Your task to perform on an android device: Go to eBay Image 0: 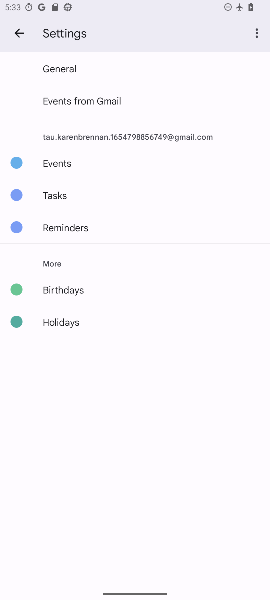
Step 0: drag from (109, 368) to (119, 314)
Your task to perform on an android device: Go to eBay Image 1: 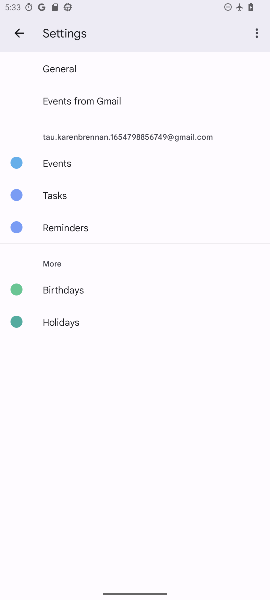
Step 1: press home button
Your task to perform on an android device: Go to eBay Image 2: 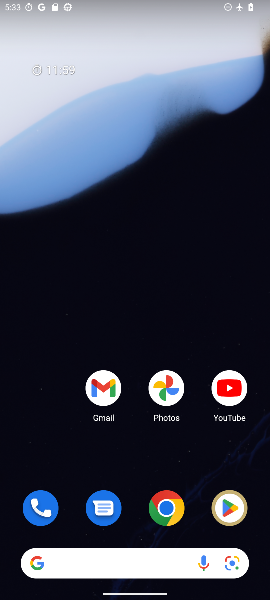
Step 2: drag from (135, 524) to (53, 18)
Your task to perform on an android device: Go to eBay Image 3: 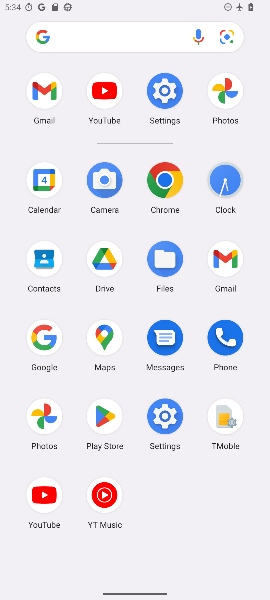
Step 3: click (134, 30)
Your task to perform on an android device: Go to eBay Image 4: 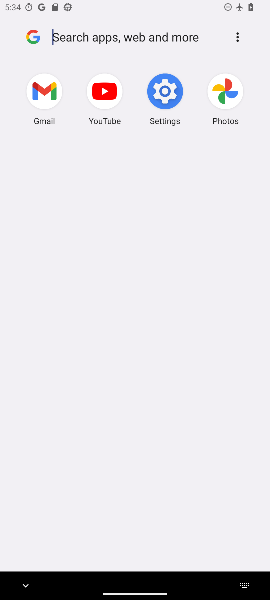
Step 4: press back button
Your task to perform on an android device: Go to eBay Image 5: 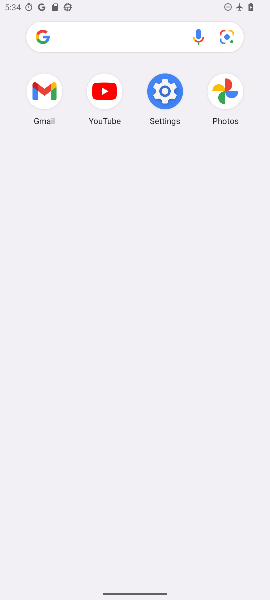
Step 5: press home button
Your task to perform on an android device: Go to eBay Image 6: 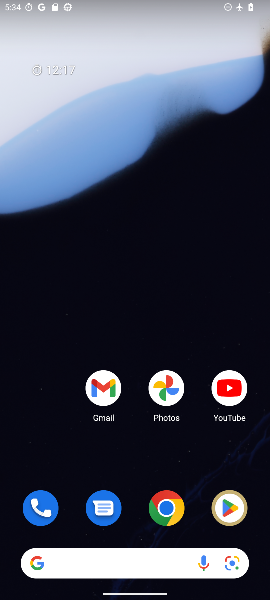
Step 6: click (156, 508)
Your task to perform on an android device: Go to eBay Image 7: 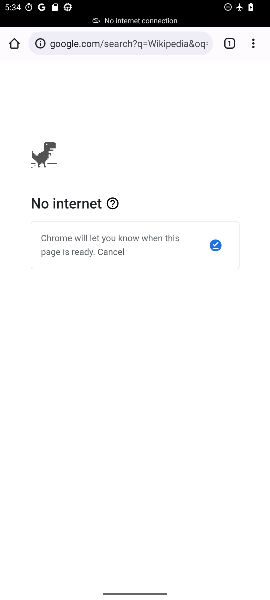
Step 7: drag from (233, 497) to (123, 385)
Your task to perform on an android device: Go to eBay Image 8: 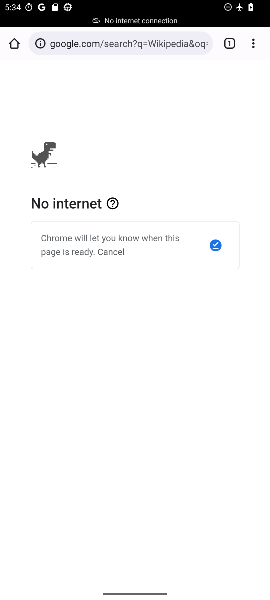
Step 8: drag from (178, 495) to (10, 6)
Your task to perform on an android device: Go to eBay Image 9: 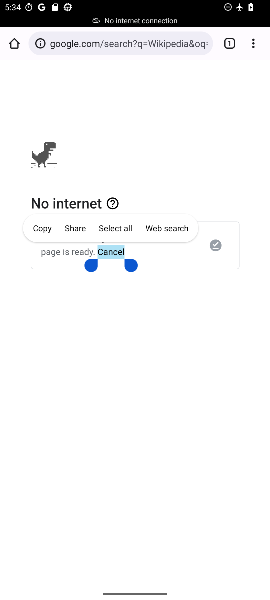
Step 9: click (108, 48)
Your task to perform on an android device: Go to eBay Image 10: 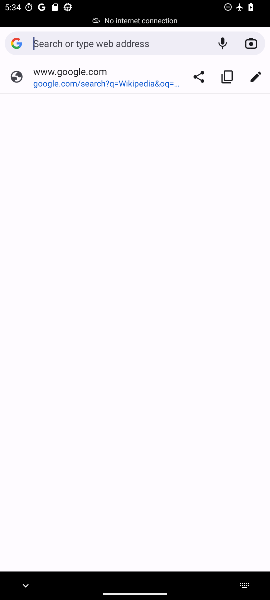
Step 10: type "eBay"
Your task to perform on an android device: Go to eBay Image 11: 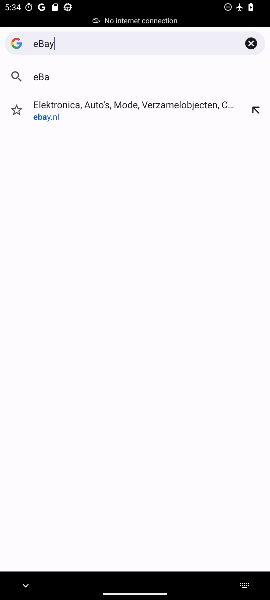
Step 11: type ""
Your task to perform on an android device: Go to eBay Image 12: 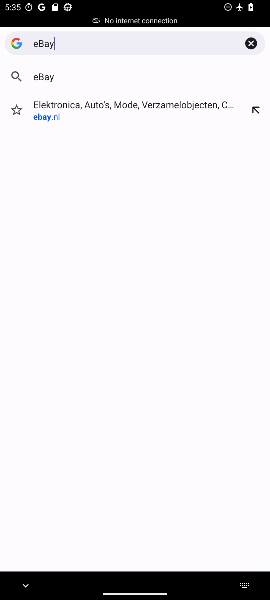
Step 12: click (60, 112)
Your task to perform on an android device: Go to eBay Image 13: 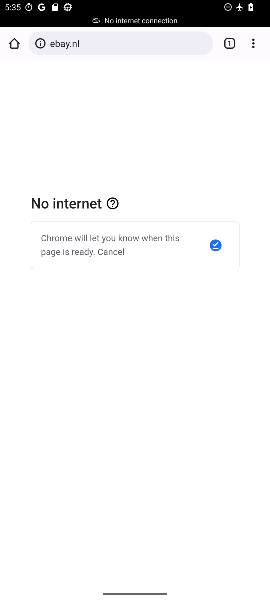
Step 13: drag from (73, 385) to (88, 219)
Your task to perform on an android device: Go to eBay Image 14: 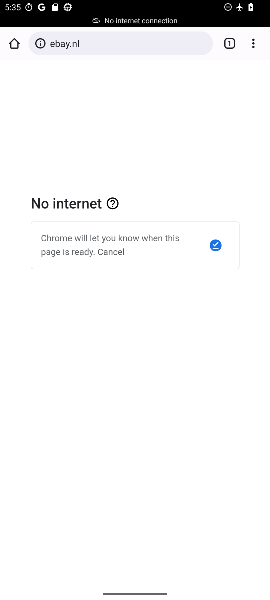
Step 14: click (117, 39)
Your task to perform on an android device: Go to eBay Image 15: 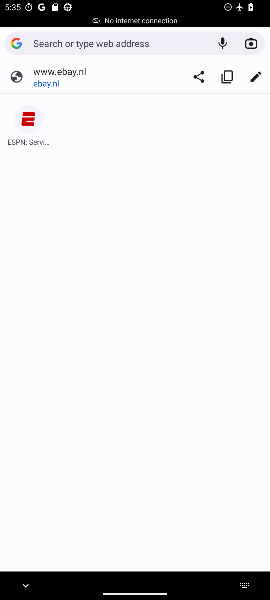
Step 15: type "eBay"
Your task to perform on an android device: Go to eBay Image 16: 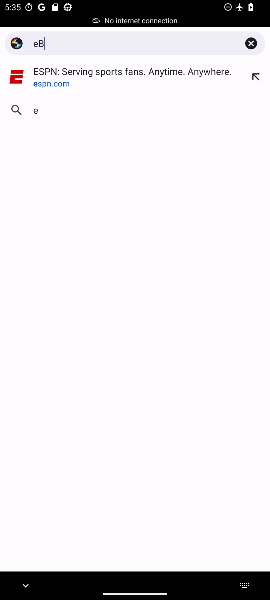
Step 16: type ""
Your task to perform on an android device: Go to eBay Image 17: 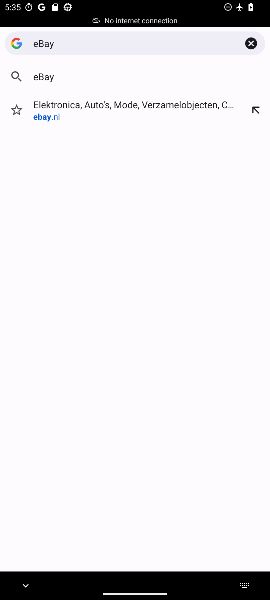
Step 17: click (69, 85)
Your task to perform on an android device: Go to eBay Image 18: 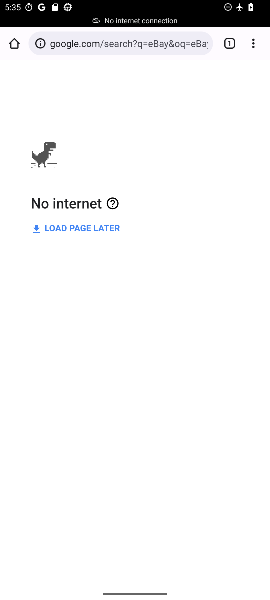
Step 18: task complete